Your task to perform on an android device: turn off notifications in google photos Image 0: 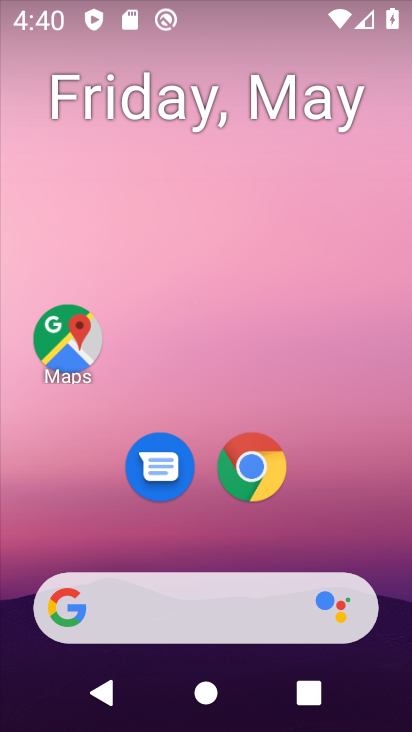
Step 0: drag from (329, 498) to (327, 70)
Your task to perform on an android device: turn off notifications in google photos Image 1: 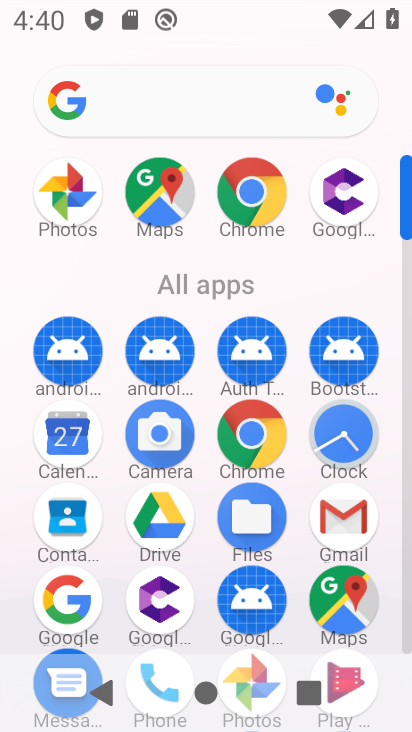
Step 1: drag from (121, 543) to (116, 183)
Your task to perform on an android device: turn off notifications in google photos Image 2: 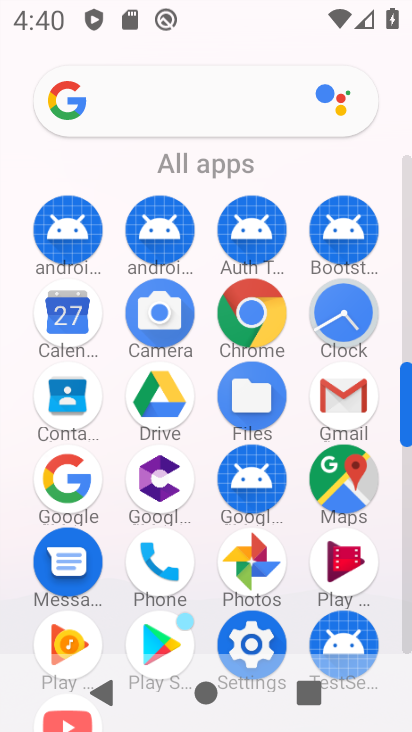
Step 2: click (261, 628)
Your task to perform on an android device: turn off notifications in google photos Image 3: 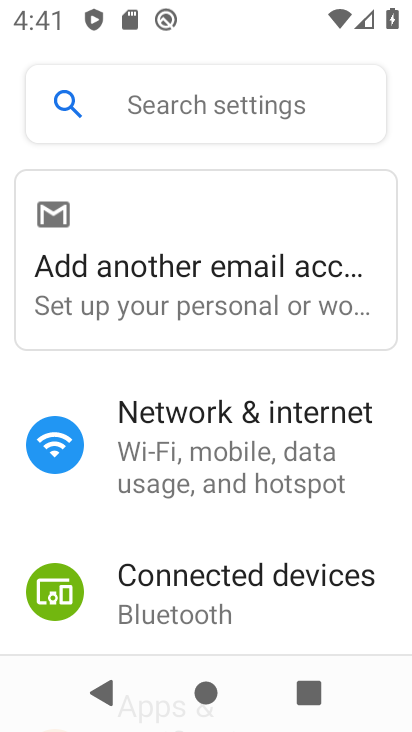
Step 3: press home button
Your task to perform on an android device: turn off notifications in google photos Image 4: 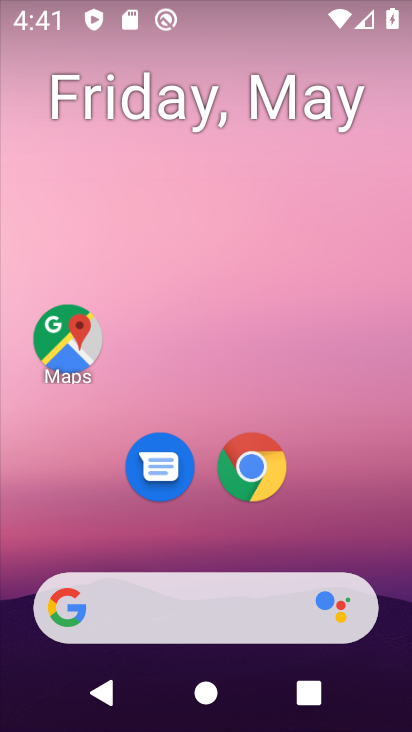
Step 4: drag from (285, 523) to (285, 190)
Your task to perform on an android device: turn off notifications in google photos Image 5: 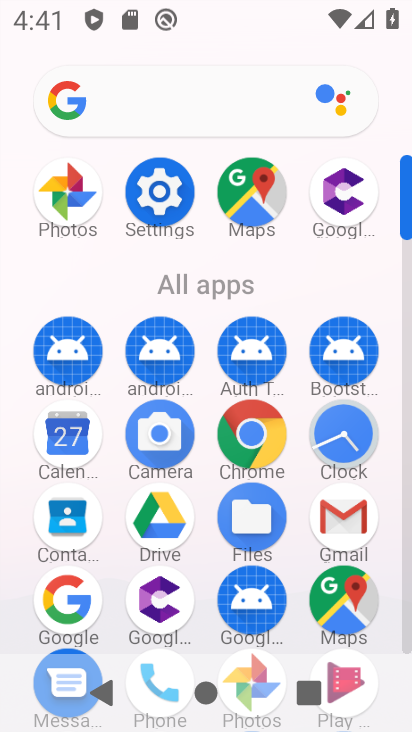
Step 5: drag from (290, 556) to (289, 325)
Your task to perform on an android device: turn off notifications in google photos Image 6: 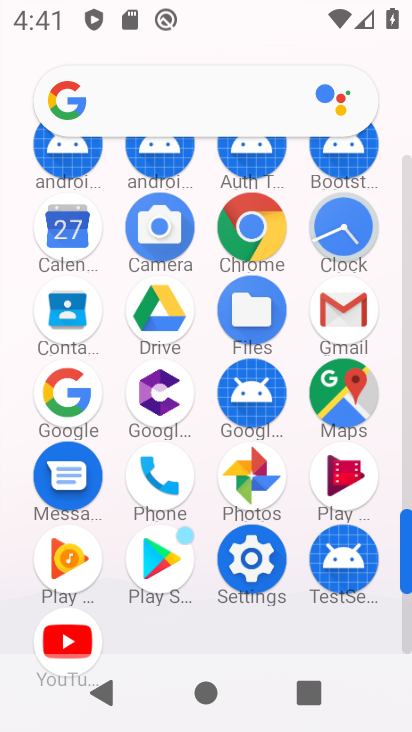
Step 6: click (263, 486)
Your task to perform on an android device: turn off notifications in google photos Image 7: 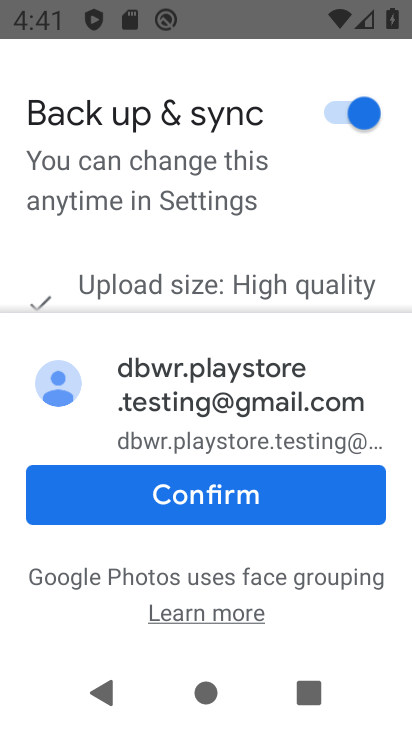
Step 7: click (183, 500)
Your task to perform on an android device: turn off notifications in google photos Image 8: 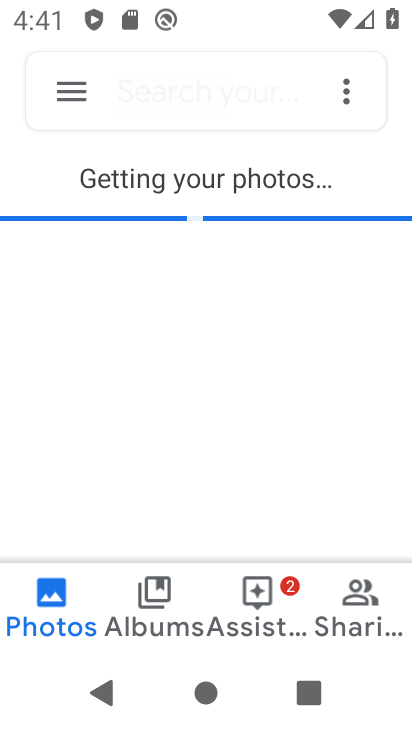
Step 8: click (80, 93)
Your task to perform on an android device: turn off notifications in google photos Image 9: 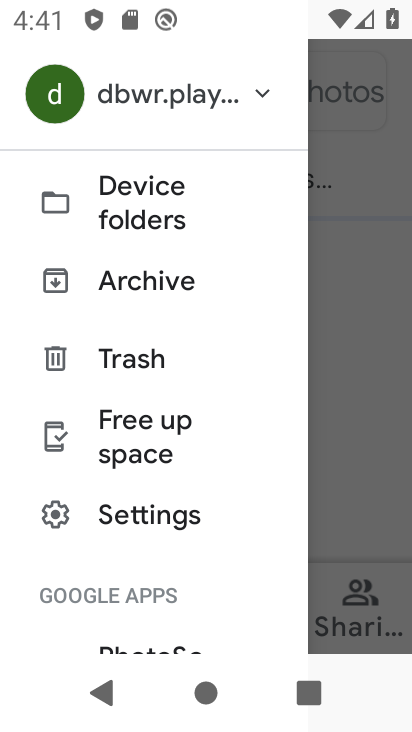
Step 9: click (165, 523)
Your task to perform on an android device: turn off notifications in google photos Image 10: 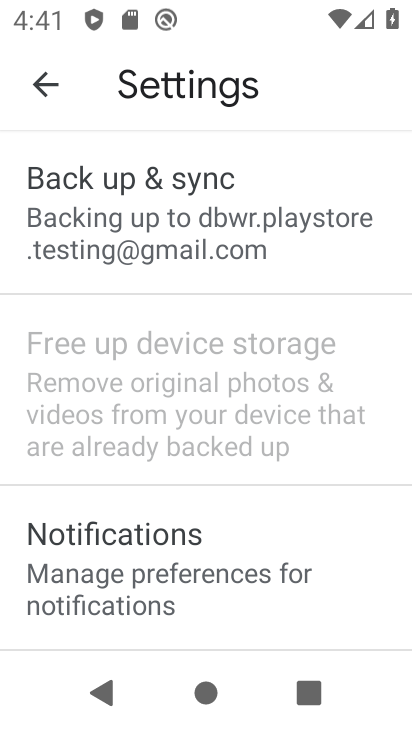
Step 10: click (225, 541)
Your task to perform on an android device: turn off notifications in google photos Image 11: 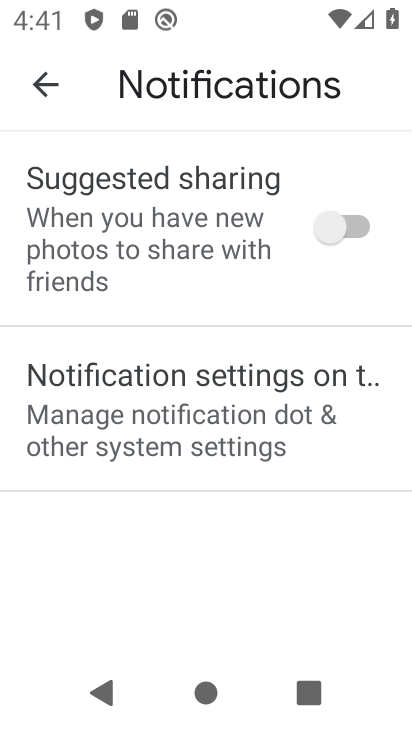
Step 11: click (234, 437)
Your task to perform on an android device: turn off notifications in google photos Image 12: 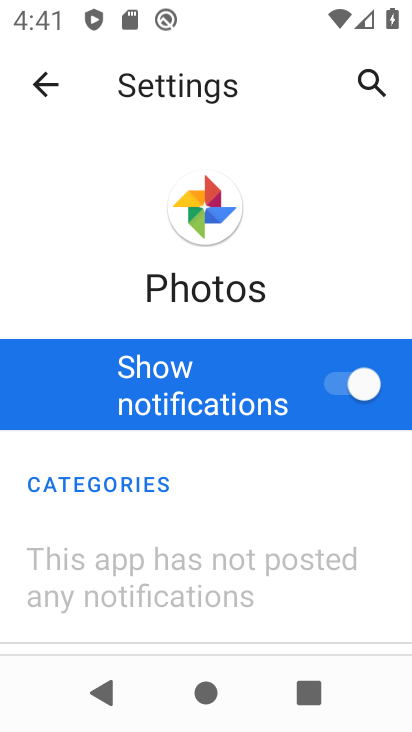
Step 12: click (330, 390)
Your task to perform on an android device: turn off notifications in google photos Image 13: 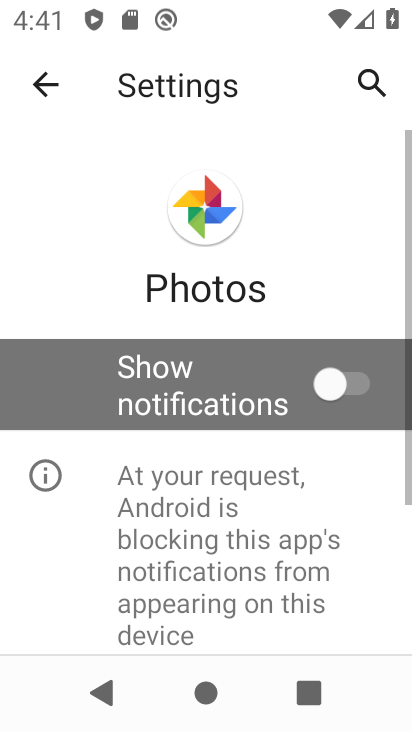
Step 13: task complete